Your task to perform on an android device: View the shopping cart on amazon. Search for "lenovo thinkpad" on amazon, select the first entry, add it to the cart, then select checkout. Image 0: 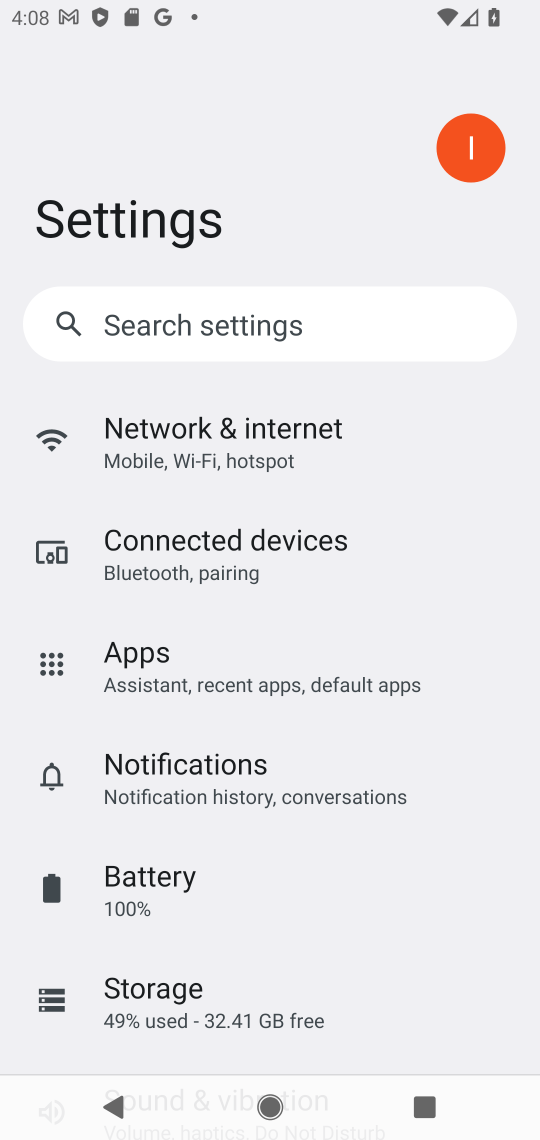
Step 0: press home button
Your task to perform on an android device: View the shopping cart on amazon. Search for "lenovo thinkpad" on amazon, select the first entry, add it to the cart, then select checkout. Image 1: 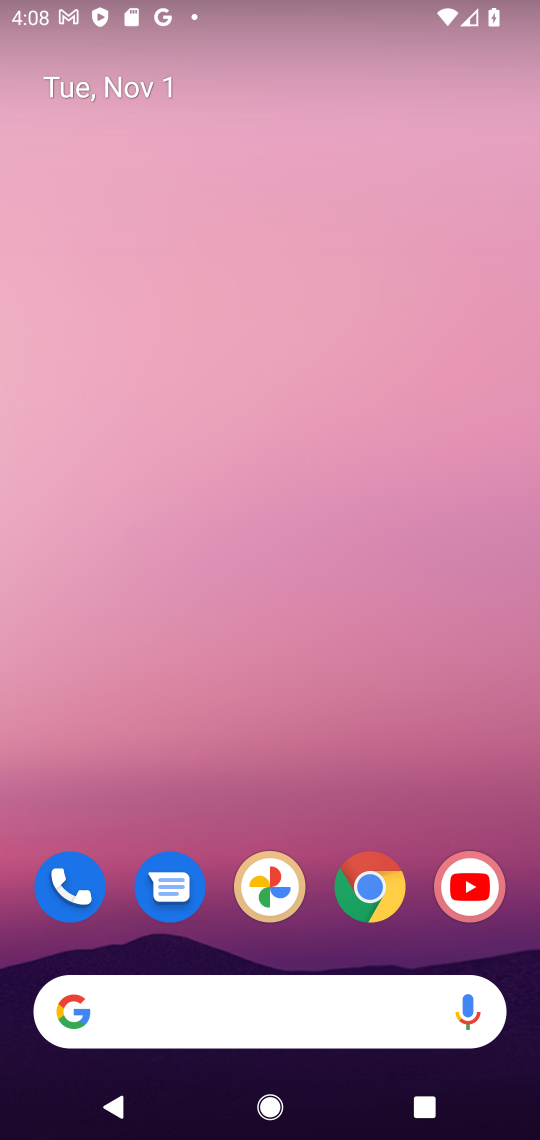
Step 1: drag from (329, 954) to (318, 247)
Your task to perform on an android device: View the shopping cart on amazon. Search for "lenovo thinkpad" on amazon, select the first entry, add it to the cart, then select checkout. Image 2: 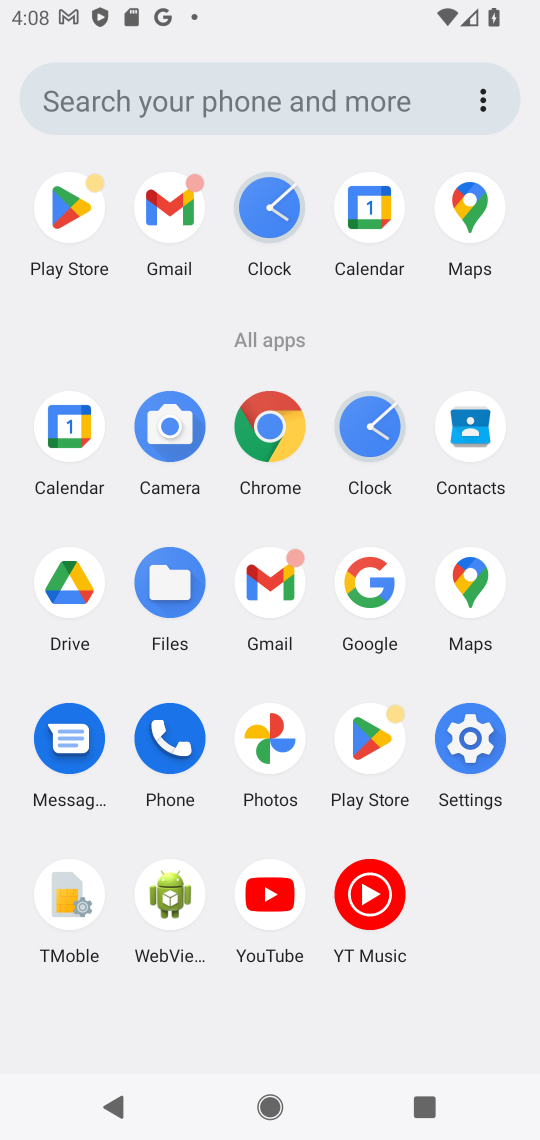
Step 2: click (271, 429)
Your task to perform on an android device: View the shopping cart on amazon. Search for "lenovo thinkpad" on amazon, select the first entry, add it to the cart, then select checkout. Image 3: 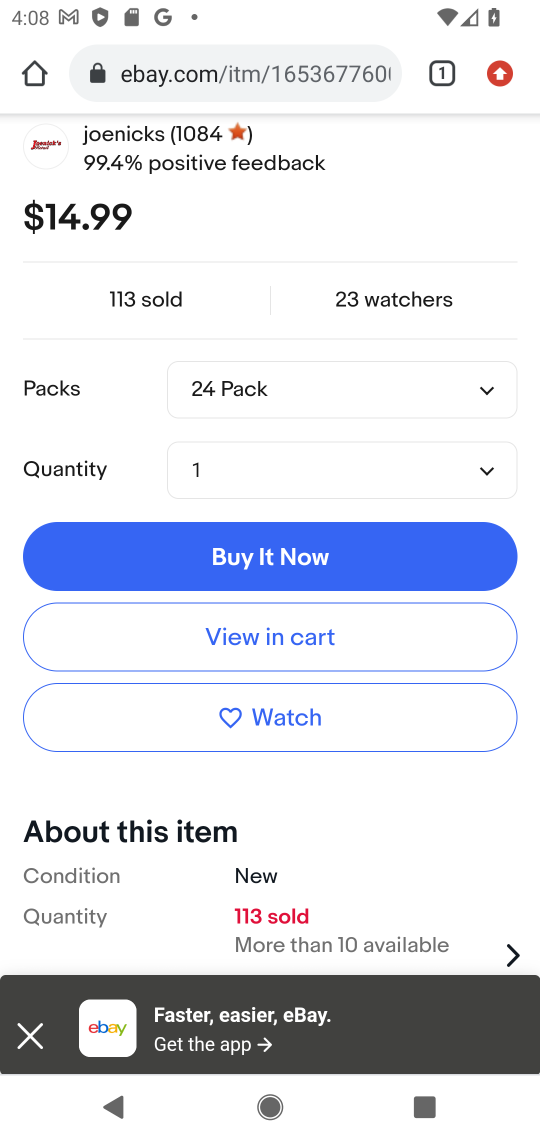
Step 3: click (317, 64)
Your task to perform on an android device: View the shopping cart on amazon. Search for "lenovo thinkpad" on amazon, select the first entry, add it to the cart, then select checkout. Image 4: 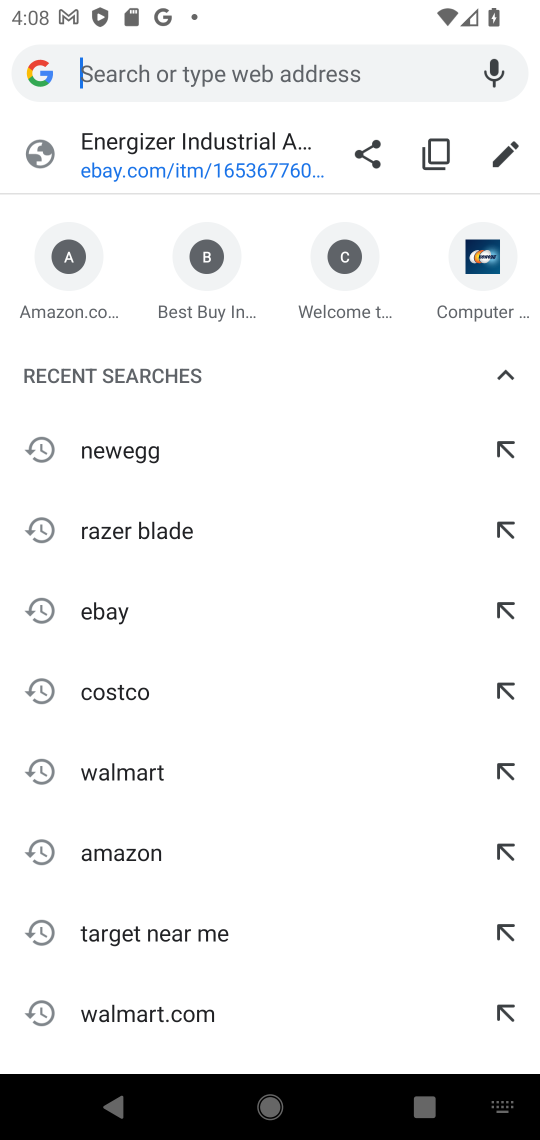
Step 4: type "amazon.com"
Your task to perform on an android device: View the shopping cart on amazon. Search for "lenovo thinkpad" on amazon, select the first entry, add it to the cart, then select checkout. Image 5: 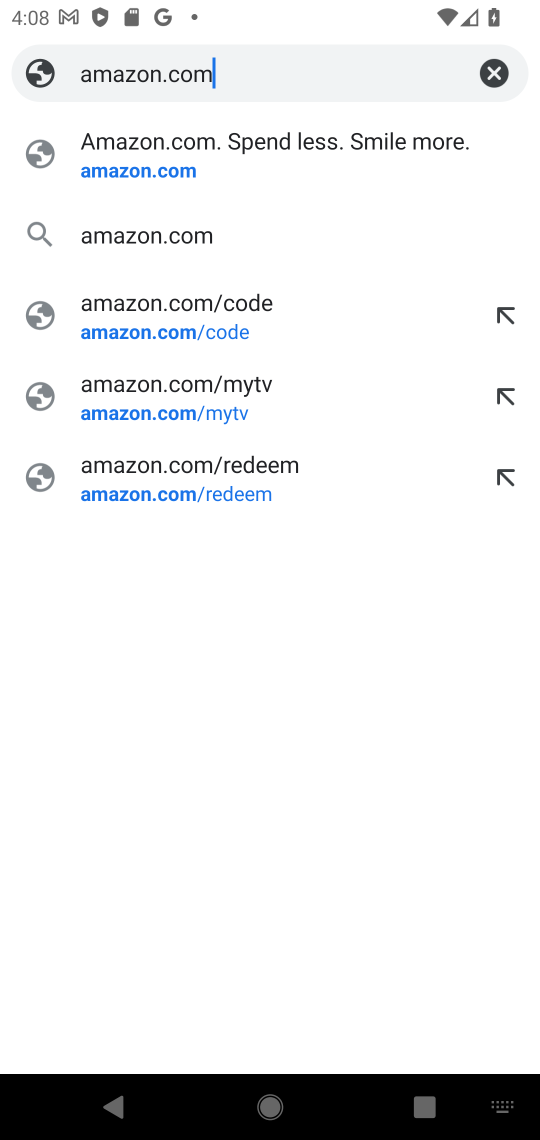
Step 5: press enter
Your task to perform on an android device: View the shopping cart on amazon. Search for "lenovo thinkpad" on amazon, select the first entry, add it to the cart, then select checkout. Image 6: 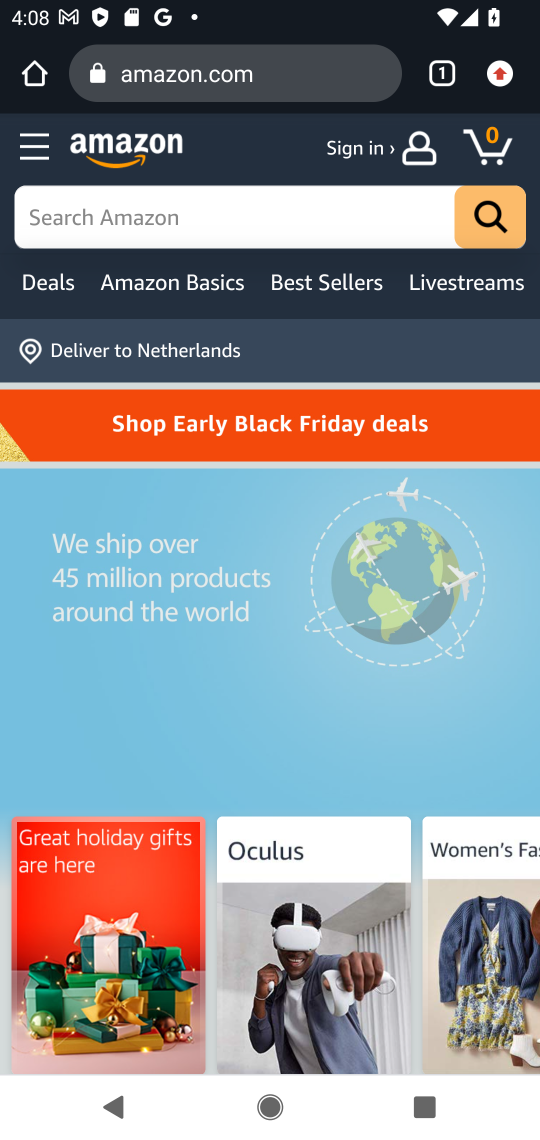
Step 6: click (484, 138)
Your task to perform on an android device: View the shopping cart on amazon. Search for "lenovo thinkpad" on amazon, select the first entry, add it to the cart, then select checkout. Image 7: 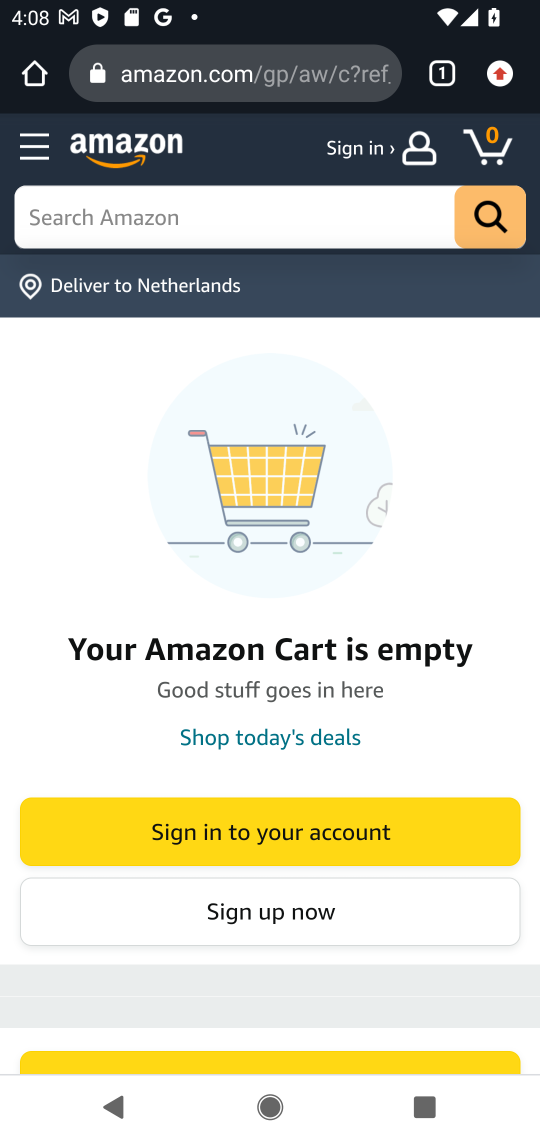
Step 7: click (326, 242)
Your task to perform on an android device: View the shopping cart on amazon. Search for "lenovo thinkpad" on amazon, select the first entry, add it to the cart, then select checkout. Image 8: 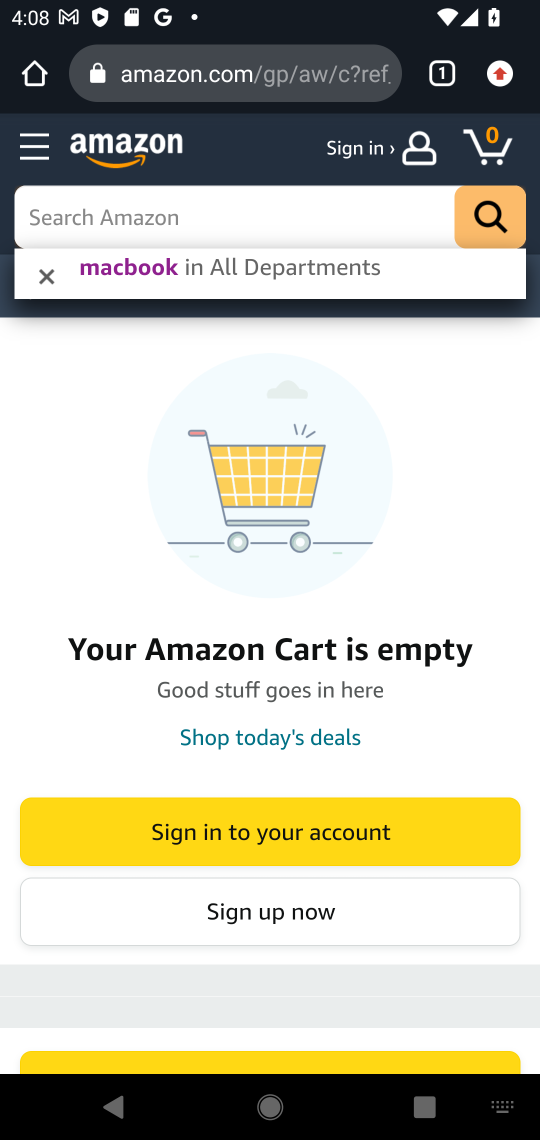
Step 8: type "lenovo thinkpad"
Your task to perform on an android device: View the shopping cart on amazon. Search for "lenovo thinkpad" on amazon, select the first entry, add it to the cart, then select checkout. Image 9: 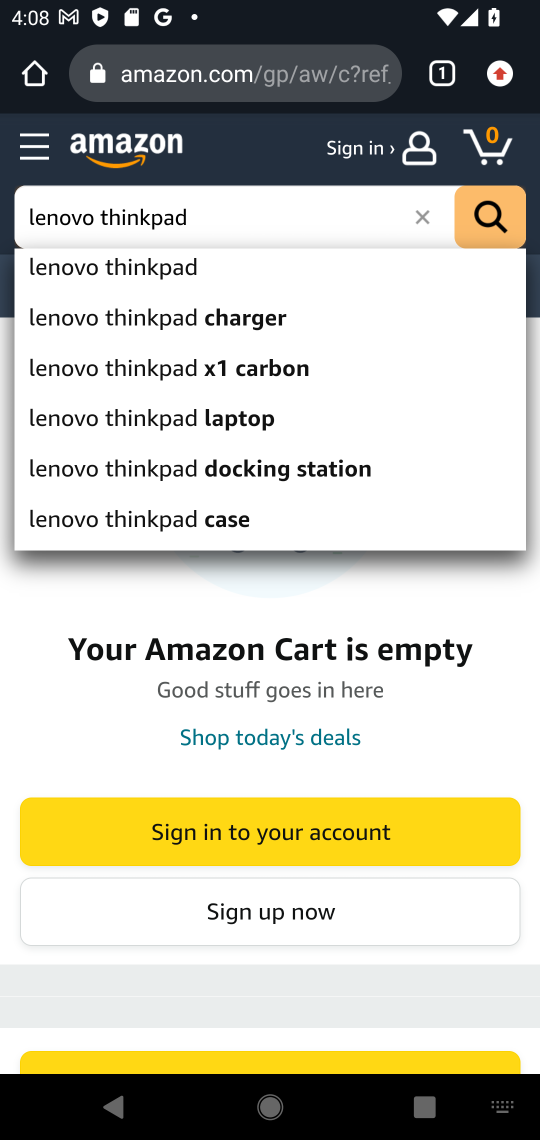
Step 9: press enter
Your task to perform on an android device: View the shopping cart on amazon. Search for "lenovo thinkpad" on amazon, select the first entry, add it to the cart, then select checkout. Image 10: 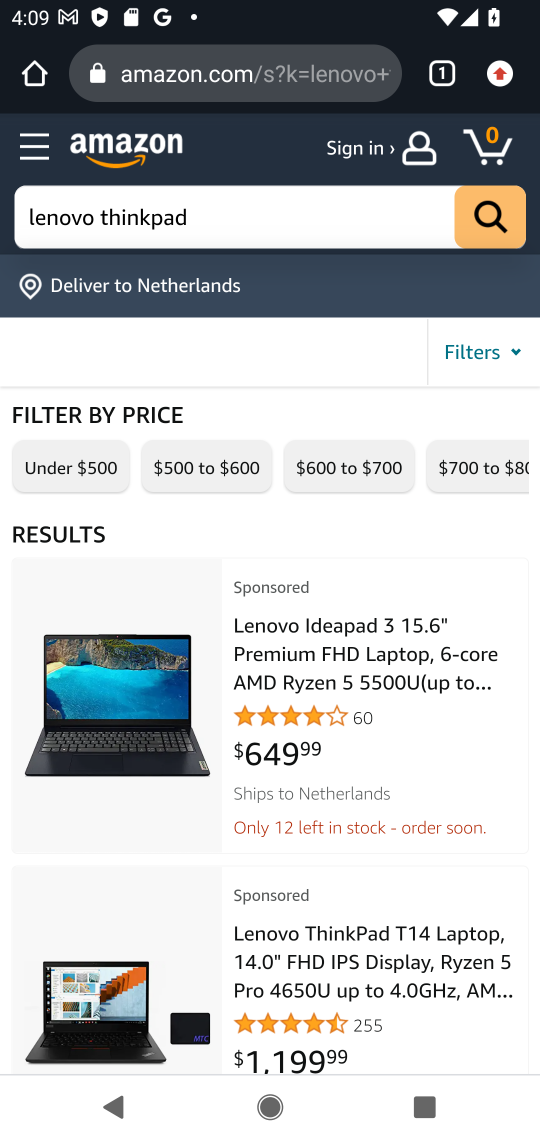
Step 10: drag from (347, 872) to (405, 246)
Your task to perform on an android device: View the shopping cart on amazon. Search for "lenovo thinkpad" on amazon, select the first entry, add it to the cart, then select checkout. Image 11: 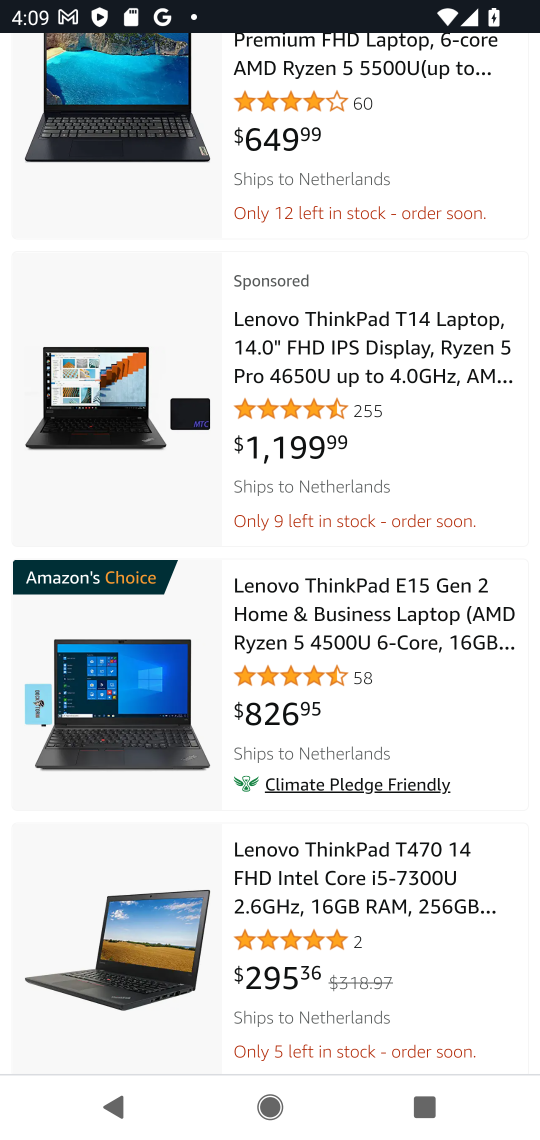
Step 11: click (129, 672)
Your task to perform on an android device: View the shopping cart on amazon. Search for "lenovo thinkpad" on amazon, select the first entry, add it to the cart, then select checkout. Image 12: 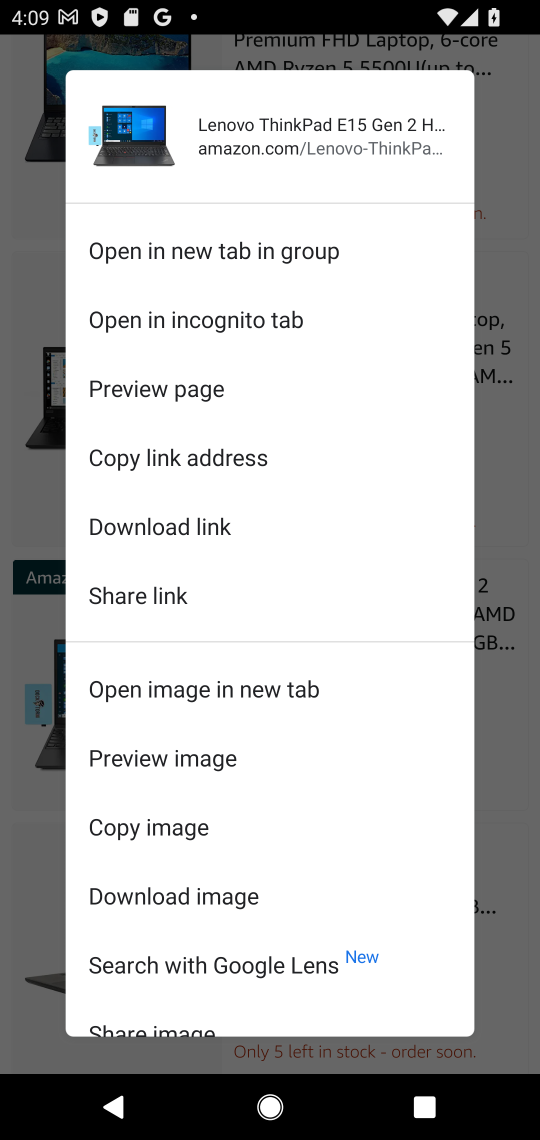
Step 12: click (502, 582)
Your task to perform on an android device: View the shopping cart on amazon. Search for "lenovo thinkpad" on amazon, select the first entry, add it to the cart, then select checkout. Image 13: 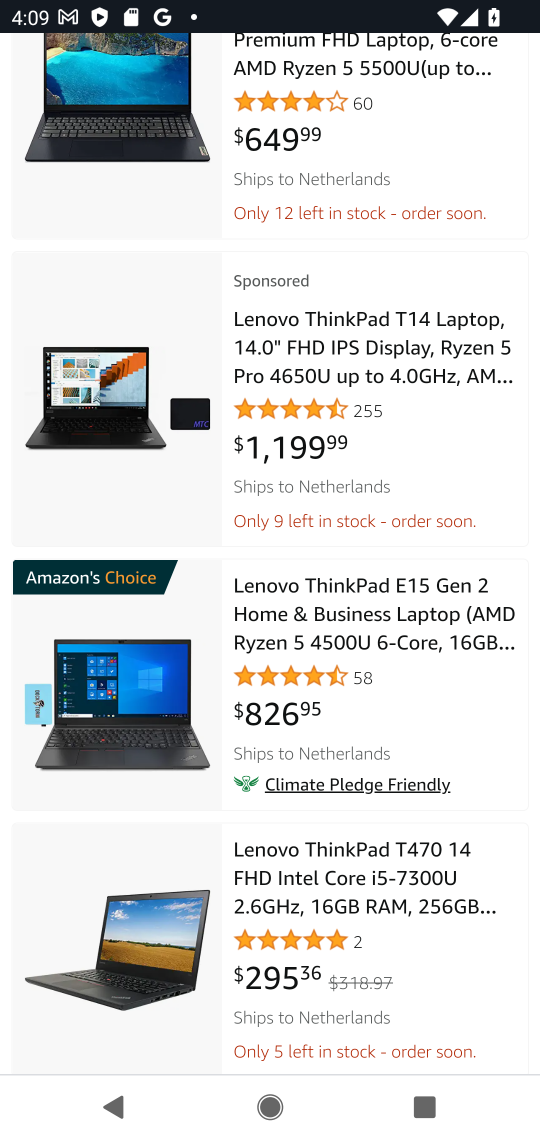
Step 13: click (285, 628)
Your task to perform on an android device: View the shopping cart on amazon. Search for "lenovo thinkpad" on amazon, select the first entry, add it to the cart, then select checkout. Image 14: 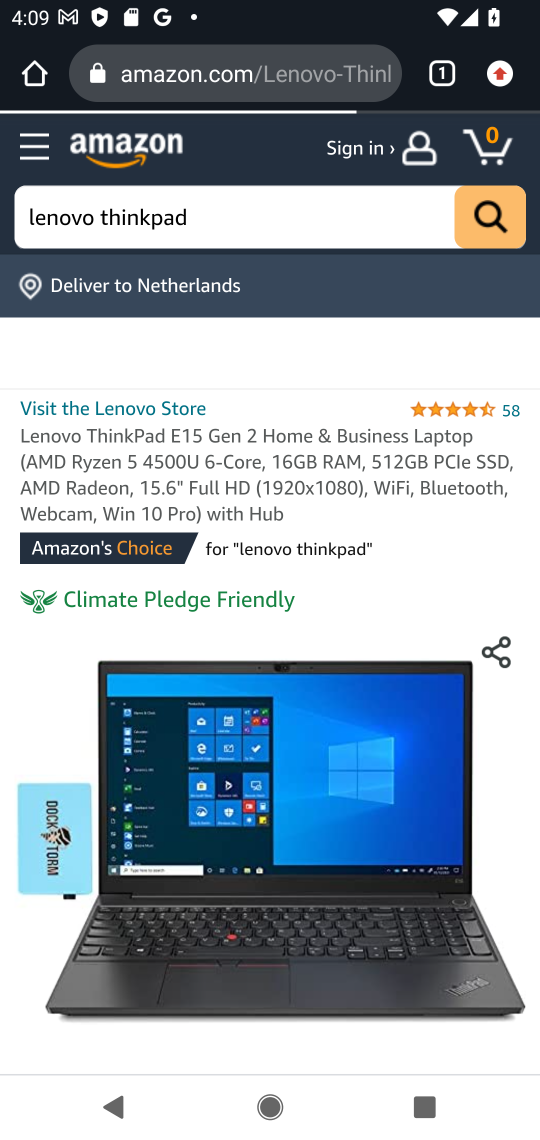
Step 14: drag from (417, 836) to (431, 218)
Your task to perform on an android device: View the shopping cart on amazon. Search for "lenovo thinkpad" on amazon, select the first entry, add it to the cart, then select checkout. Image 15: 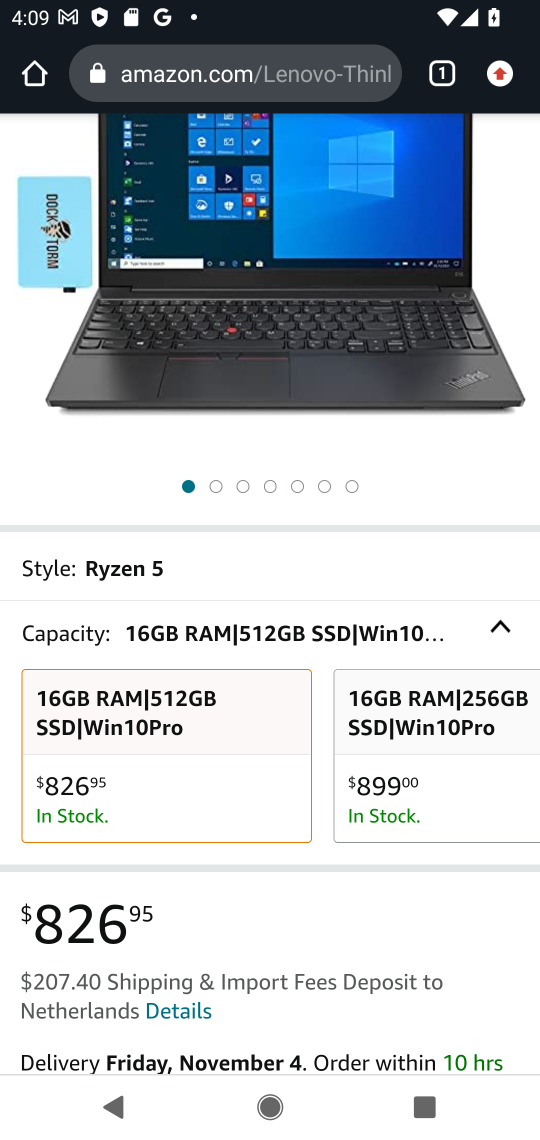
Step 15: drag from (278, 790) to (264, 390)
Your task to perform on an android device: View the shopping cart on amazon. Search for "lenovo thinkpad" on amazon, select the first entry, add it to the cart, then select checkout. Image 16: 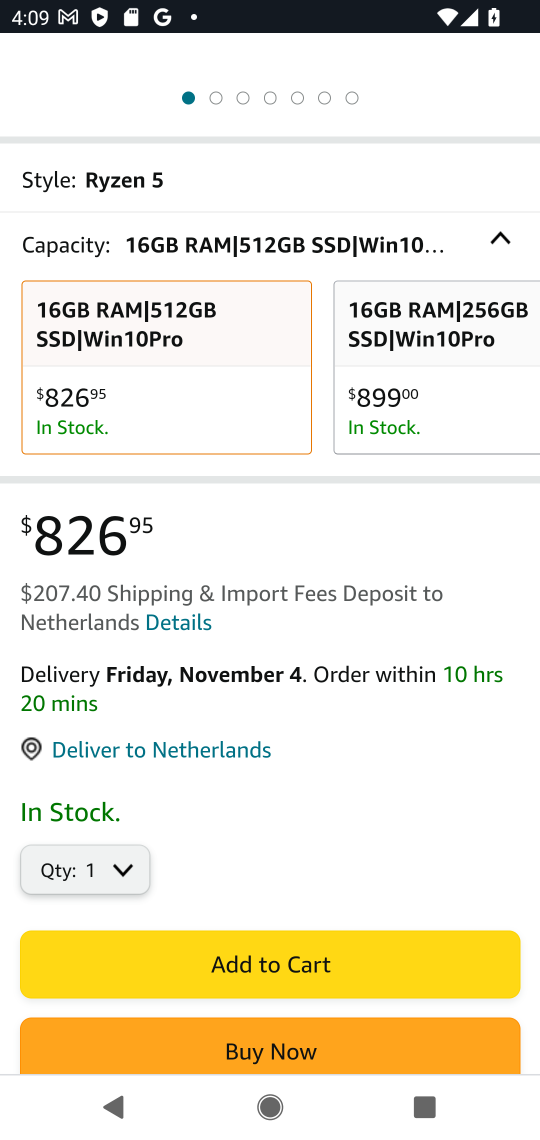
Step 16: click (351, 946)
Your task to perform on an android device: View the shopping cart on amazon. Search for "lenovo thinkpad" on amazon, select the first entry, add it to the cart, then select checkout. Image 17: 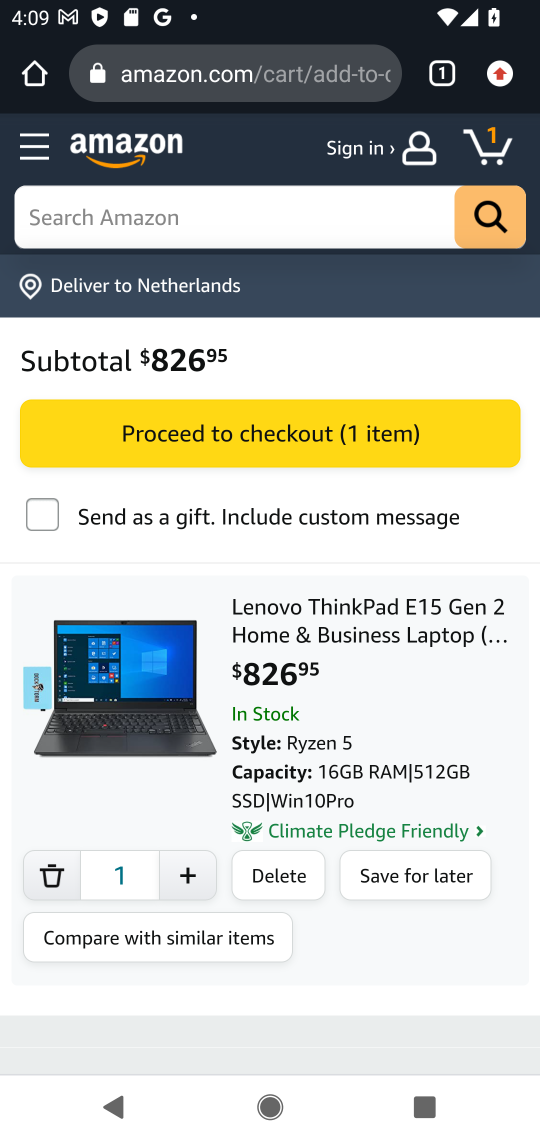
Step 17: click (390, 423)
Your task to perform on an android device: View the shopping cart on amazon. Search for "lenovo thinkpad" on amazon, select the first entry, add it to the cart, then select checkout. Image 18: 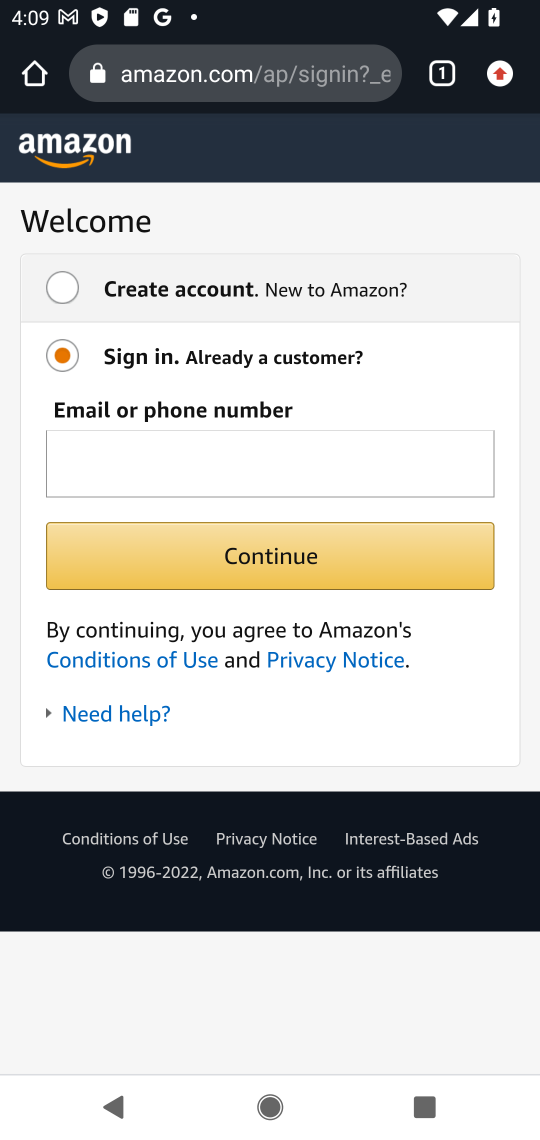
Step 18: task complete